Your task to perform on an android device: Clear all items from cart on amazon. Add razer thresher to the cart on amazon Image 0: 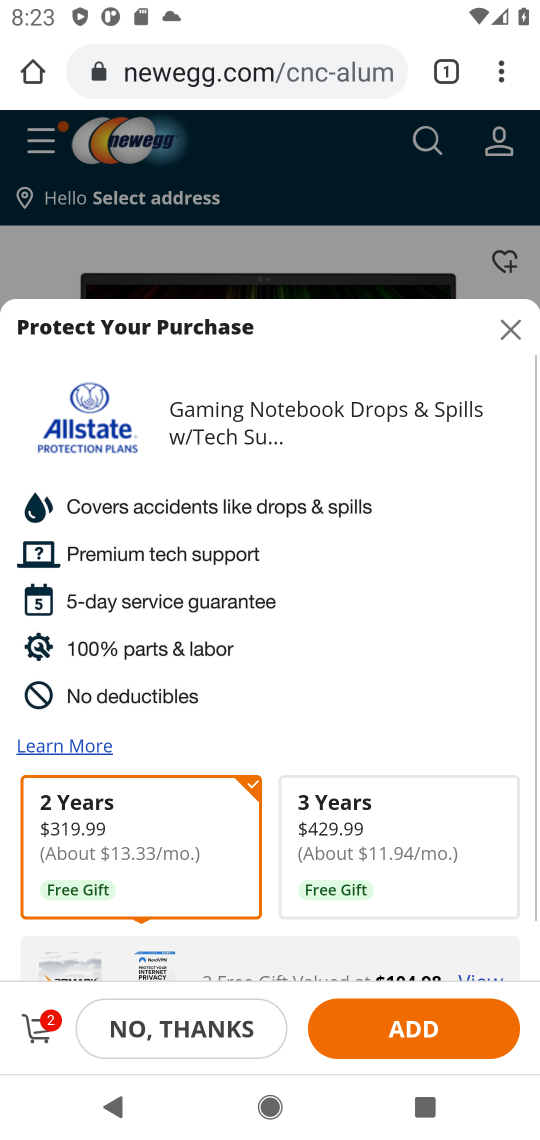
Step 0: task complete